Your task to perform on an android device: empty trash in the gmail app Image 0: 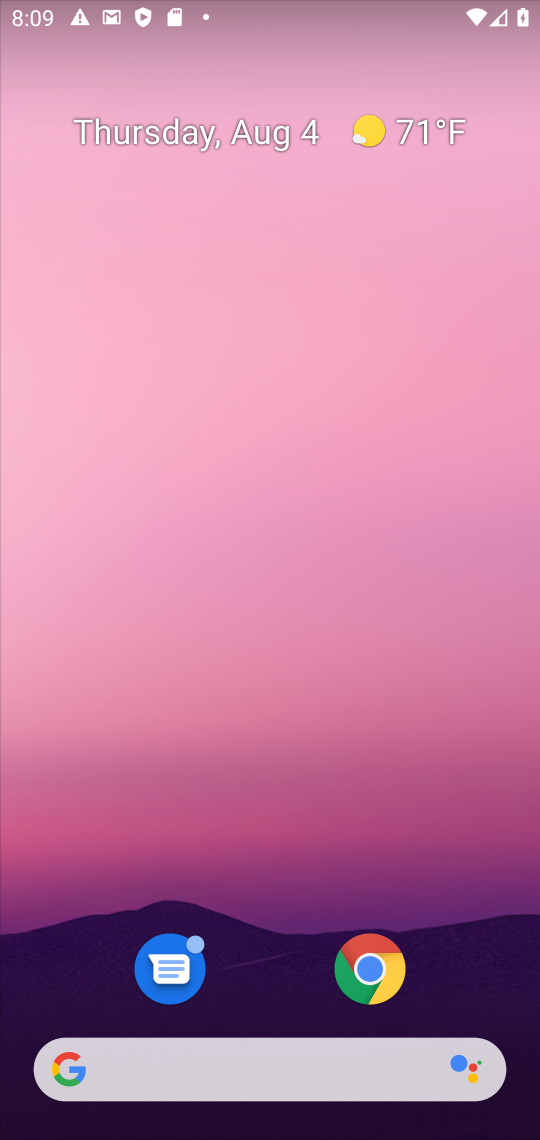
Step 0: press home button
Your task to perform on an android device: empty trash in the gmail app Image 1: 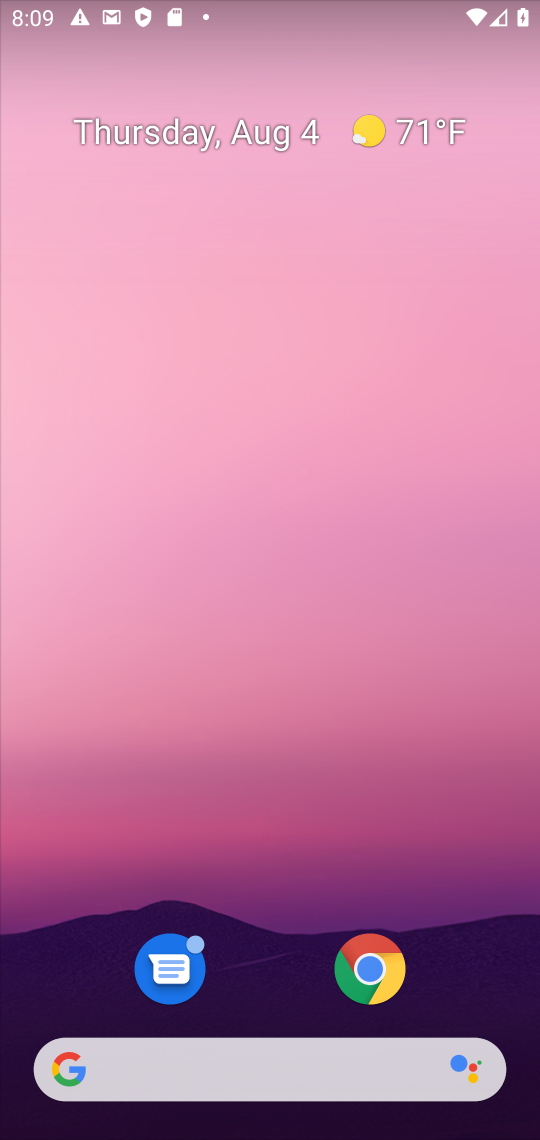
Step 1: drag from (284, 718) to (323, 109)
Your task to perform on an android device: empty trash in the gmail app Image 2: 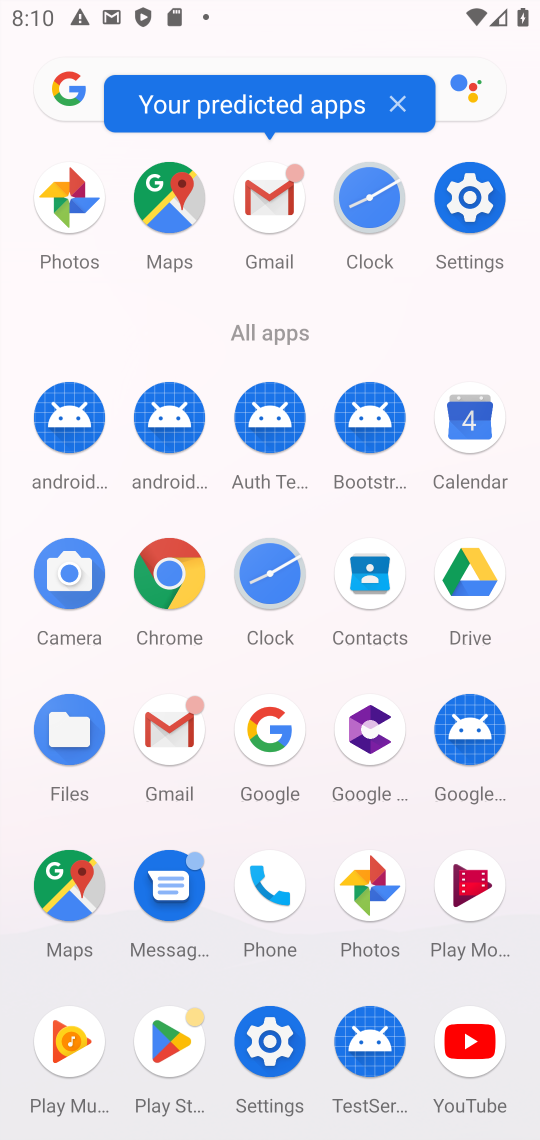
Step 2: click (274, 193)
Your task to perform on an android device: empty trash in the gmail app Image 3: 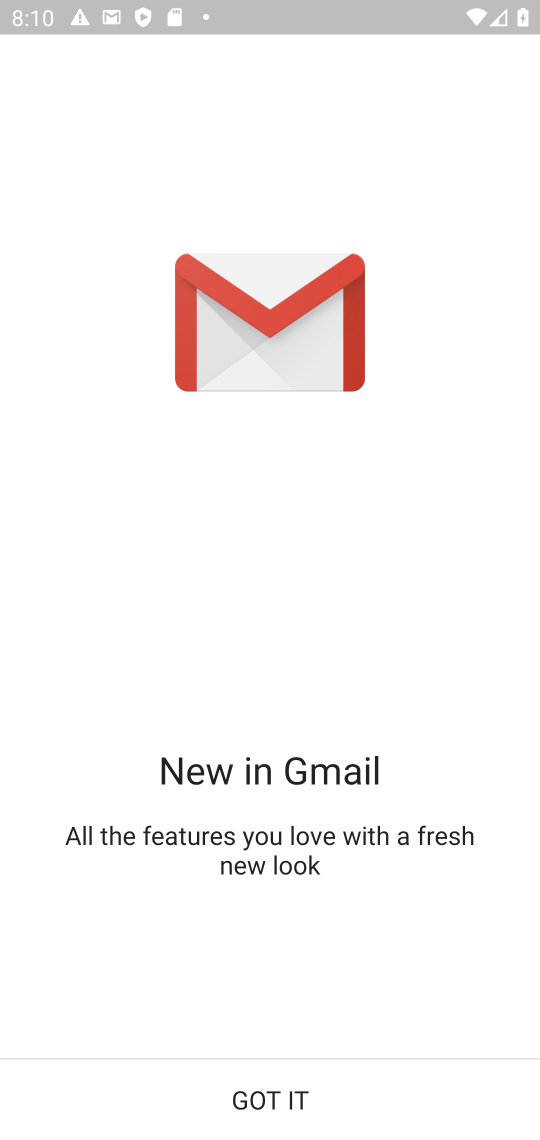
Step 3: click (277, 1092)
Your task to perform on an android device: empty trash in the gmail app Image 4: 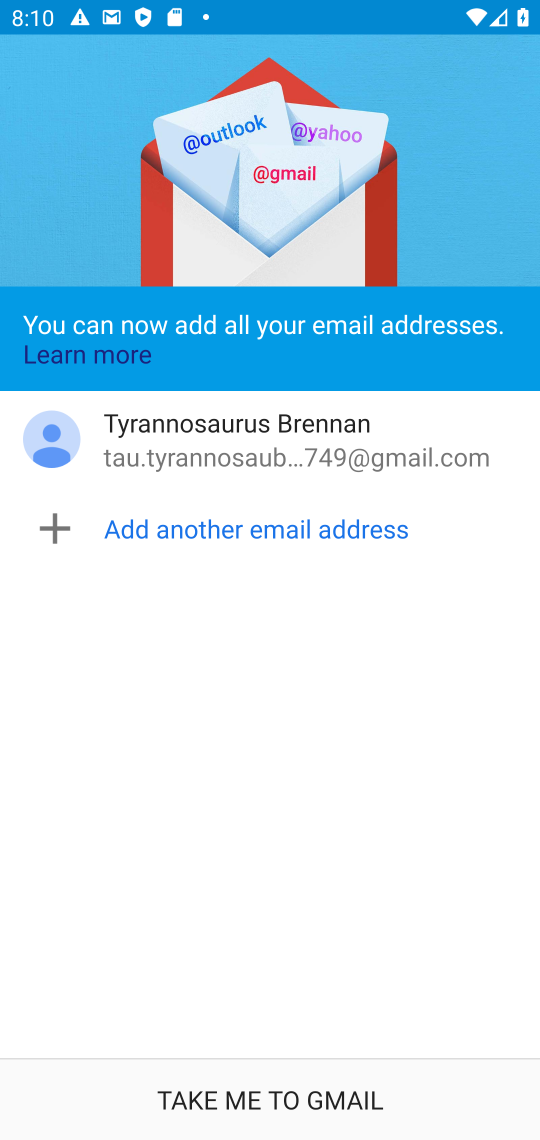
Step 4: click (281, 1092)
Your task to perform on an android device: empty trash in the gmail app Image 5: 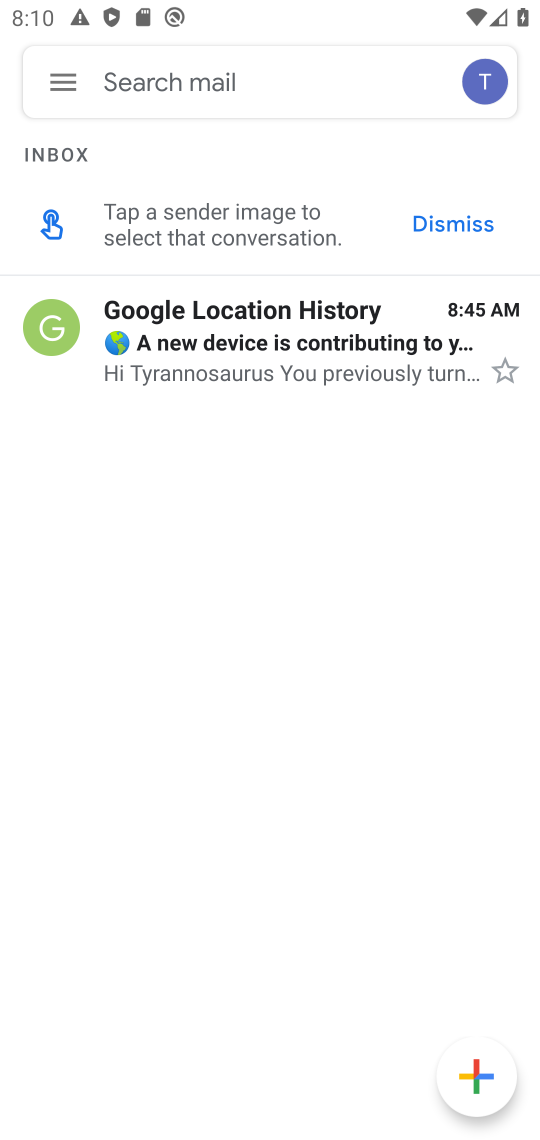
Step 5: click (61, 86)
Your task to perform on an android device: empty trash in the gmail app Image 6: 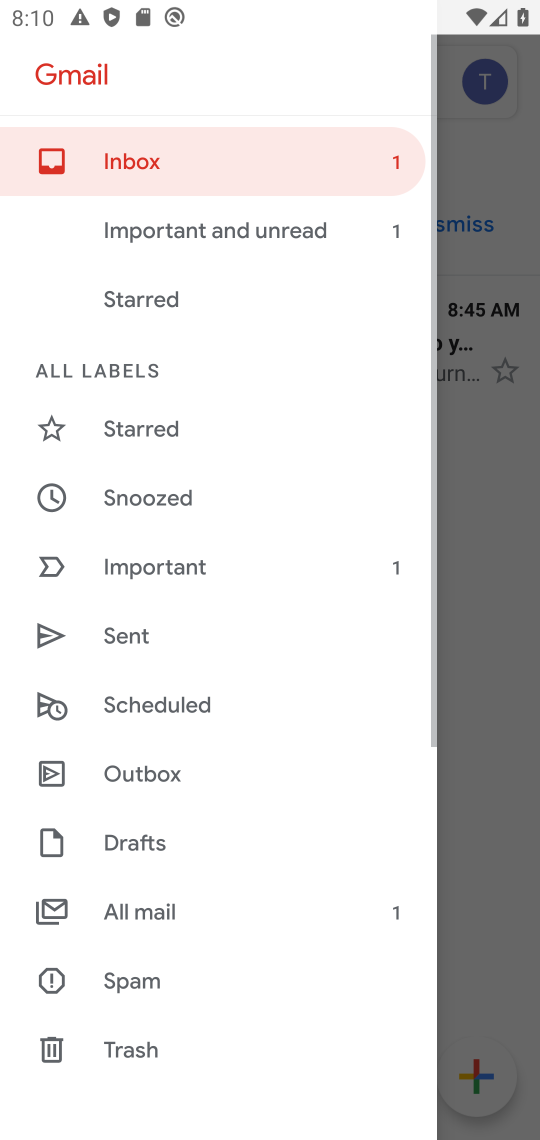
Step 6: click (166, 1053)
Your task to perform on an android device: empty trash in the gmail app Image 7: 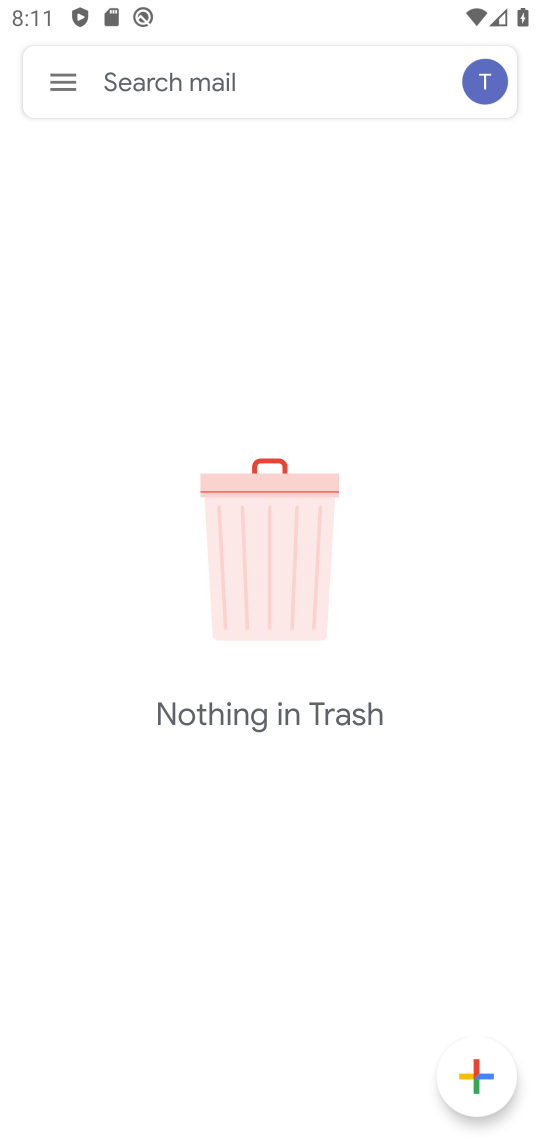
Step 7: task complete